Your task to perform on an android device: toggle show notifications on the lock screen Image 0: 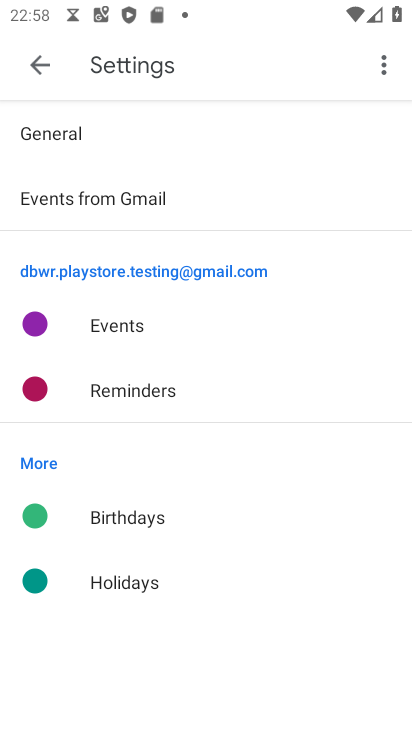
Step 0: press back button
Your task to perform on an android device: toggle show notifications on the lock screen Image 1: 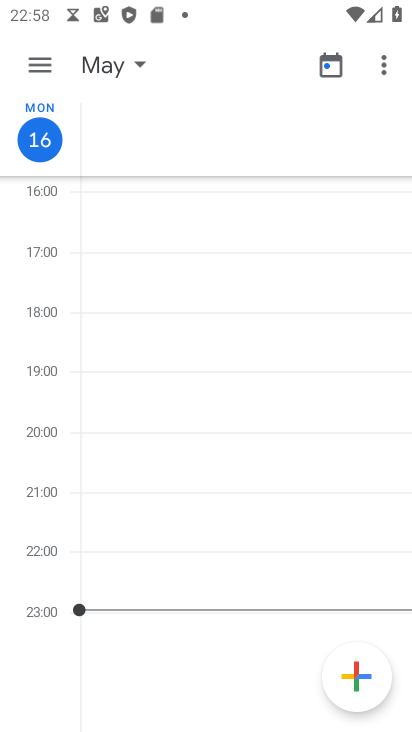
Step 1: press back button
Your task to perform on an android device: toggle show notifications on the lock screen Image 2: 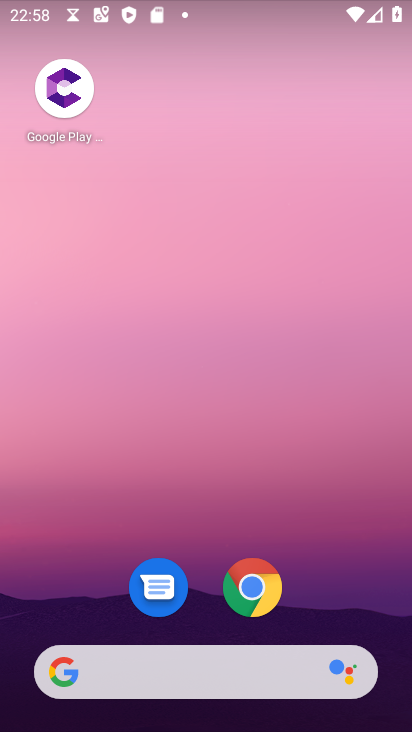
Step 2: drag from (345, 523) to (251, 20)
Your task to perform on an android device: toggle show notifications on the lock screen Image 3: 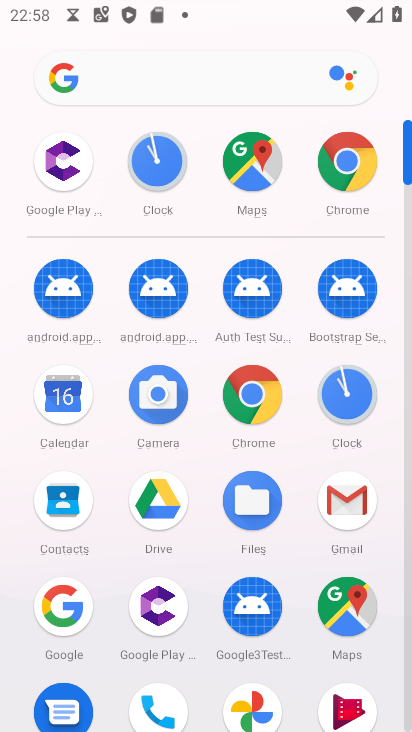
Step 3: drag from (12, 521) to (0, 235)
Your task to perform on an android device: toggle show notifications on the lock screen Image 4: 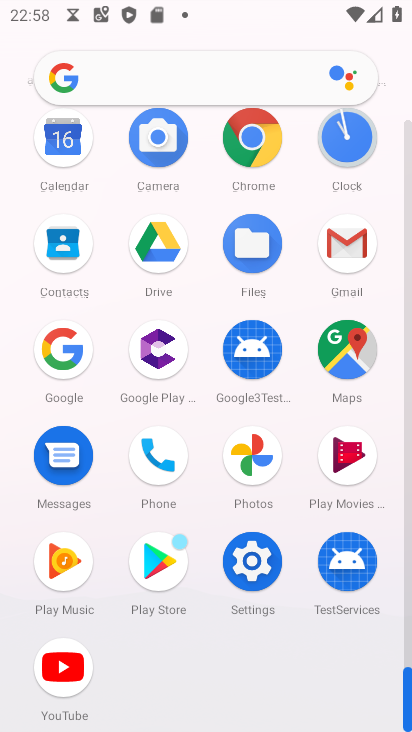
Step 4: click (251, 562)
Your task to perform on an android device: toggle show notifications on the lock screen Image 5: 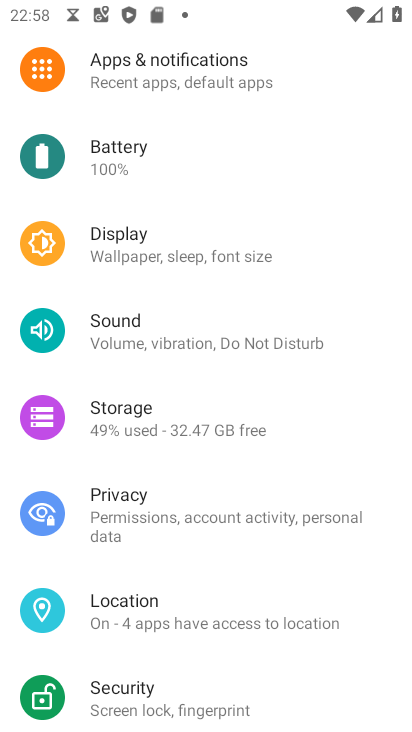
Step 5: drag from (289, 281) to (290, 597)
Your task to perform on an android device: toggle show notifications on the lock screen Image 6: 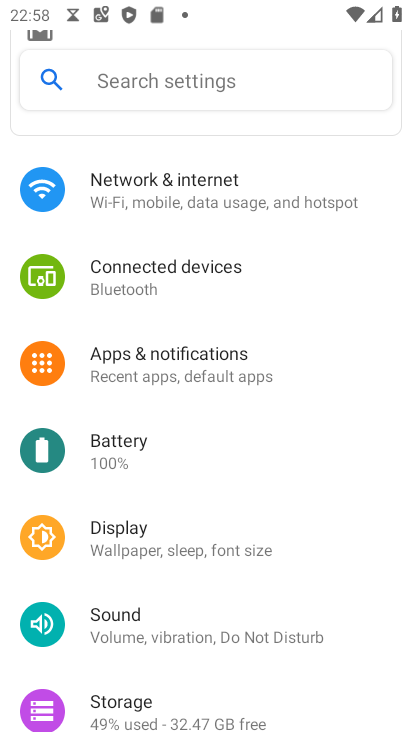
Step 6: drag from (299, 245) to (292, 559)
Your task to perform on an android device: toggle show notifications on the lock screen Image 7: 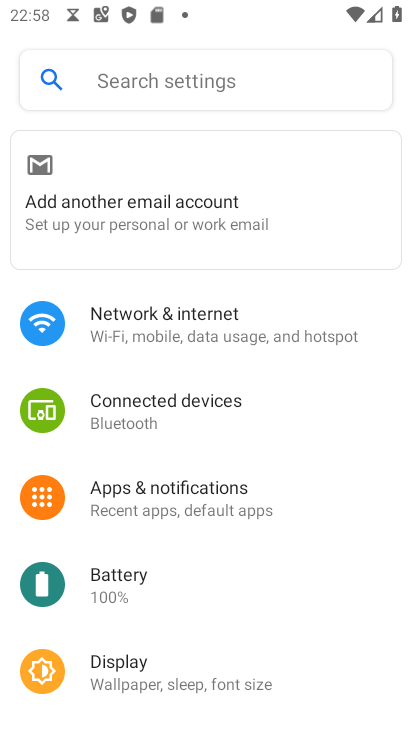
Step 7: drag from (284, 542) to (297, 171)
Your task to perform on an android device: toggle show notifications on the lock screen Image 8: 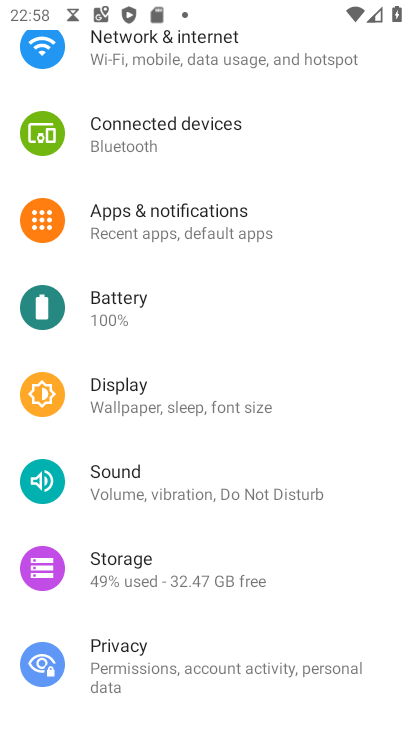
Step 8: drag from (242, 490) to (251, 185)
Your task to perform on an android device: toggle show notifications on the lock screen Image 9: 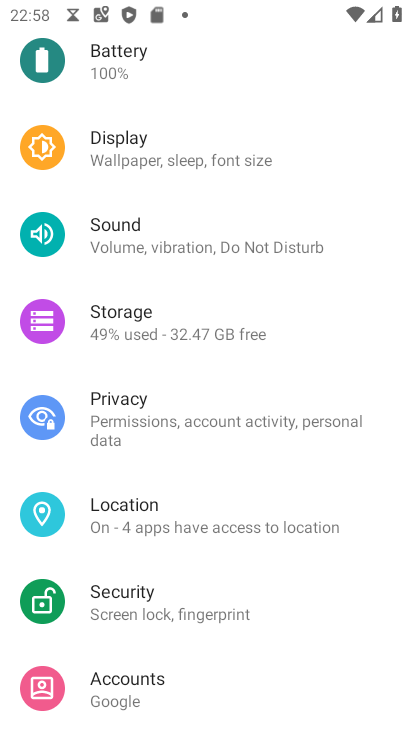
Step 9: drag from (269, 557) to (261, 125)
Your task to perform on an android device: toggle show notifications on the lock screen Image 10: 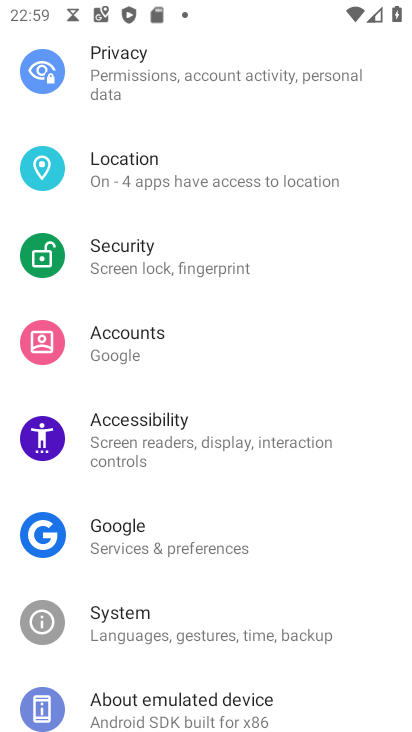
Step 10: drag from (251, 623) to (238, 125)
Your task to perform on an android device: toggle show notifications on the lock screen Image 11: 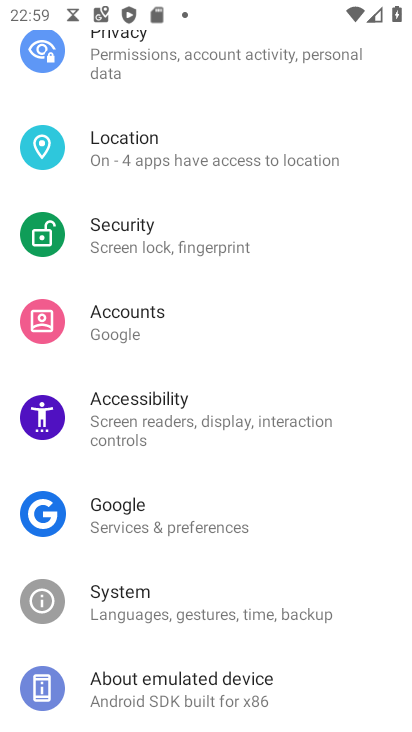
Step 11: drag from (257, 609) to (249, 139)
Your task to perform on an android device: toggle show notifications on the lock screen Image 12: 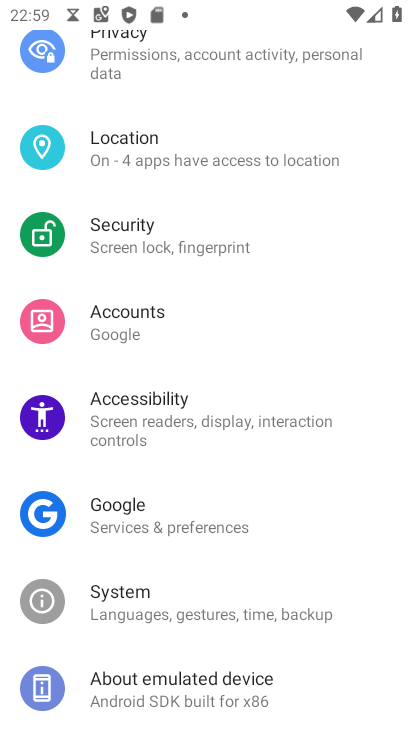
Step 12: drag from (235, 294) to (232, 678)
Your task to perform on an android device: toggle show notifications on the lock screen Image 13: 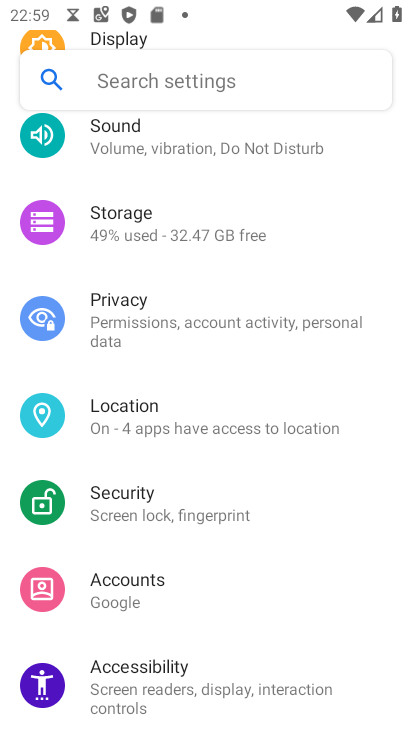
Step 13: drag from (242, 249) to (241, 611)
Your task to perform on an android device: toggle show notifications on the lock screen Image 14: 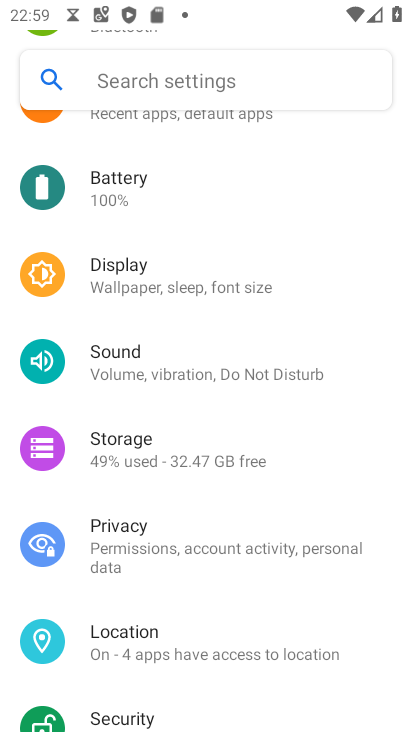
Step 14: drag from (246, 342) to (242, 613)
Your task to perform on an android device: toggle show notifications on the lock screen Image 15: 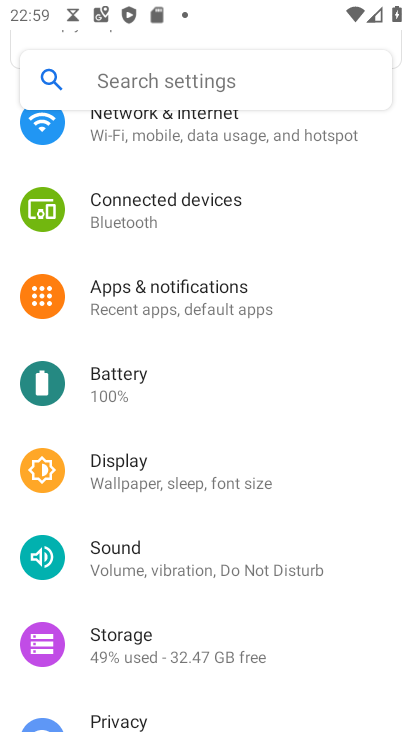
Step 15: drag from (234, 238) to (232, 577)
Your task to perform on an android device: toggle show notifications on the lock screen Image 16: 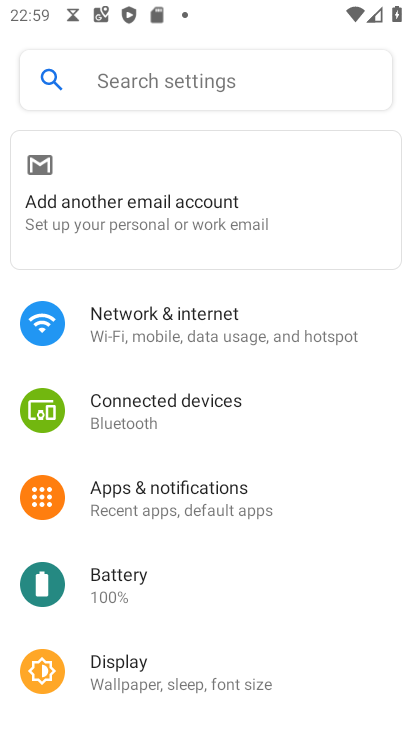
Step 16: click (212, 488)
Your task to perform on an android device: toggle show notifications on the lock screen Image 17: 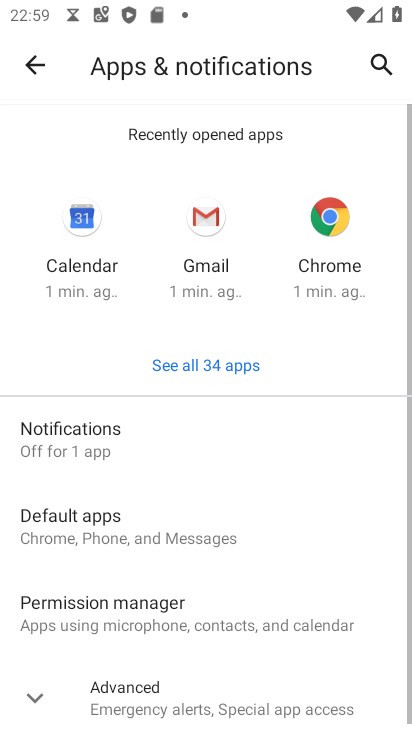
Step 17: click (146, 425)
Your task to perform on an android device: toggle show notifications on the lock screen Image 18: 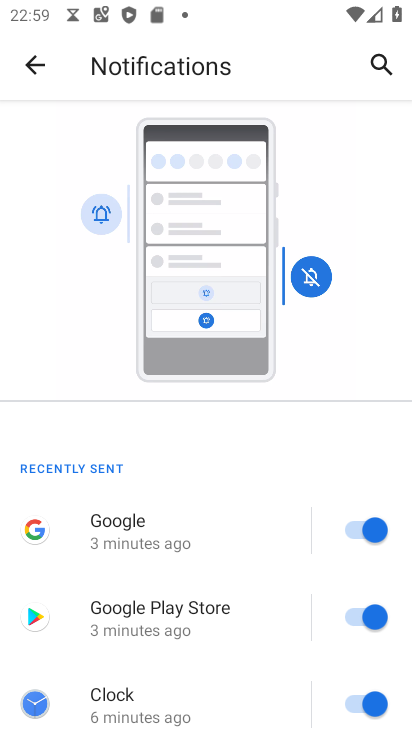
Step 18: drag from (243, 551) to (240, 61)
Your task to perform on an android device: toggle show notifications on the lock screen Image 19: 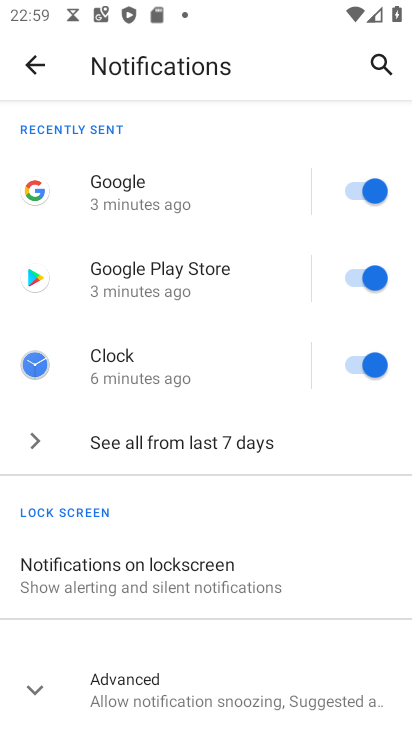
Step 19: click (30, 699)
Your task to perform on an android device: toggle show notifications on the lock screen Image 20: 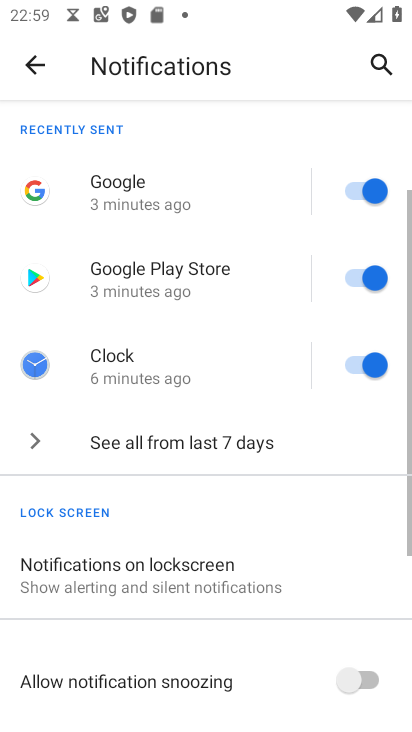
Step 20: drag from (204, 618) to (206, 128)
Your task to perform on an android device: toggle show notifications on the lock screen Image 21: 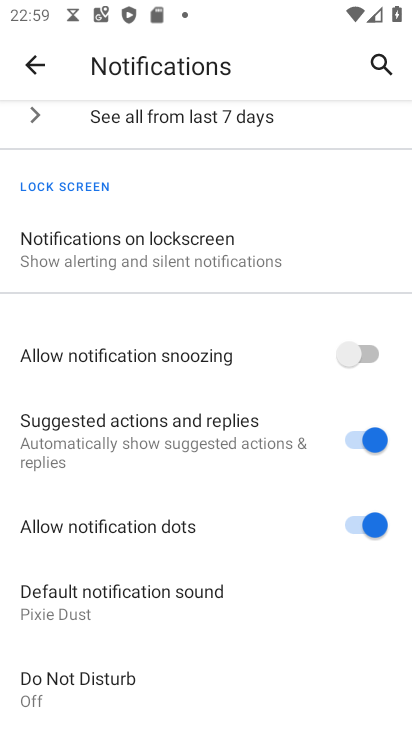
Step 21: drag from (204, 563) to (210, 239)
Your task to perform on an android device: toggle show notifications on the lock screen Image 22: 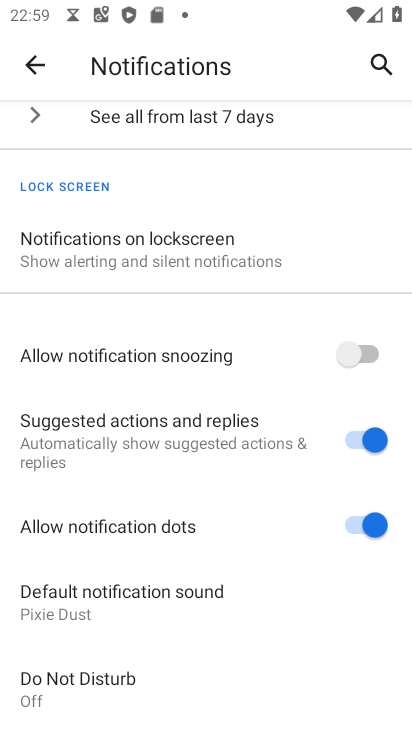
Step 22: click (216, 245)
Your task to perform on an android device: toggle show notifications on the lock screen Image 23: 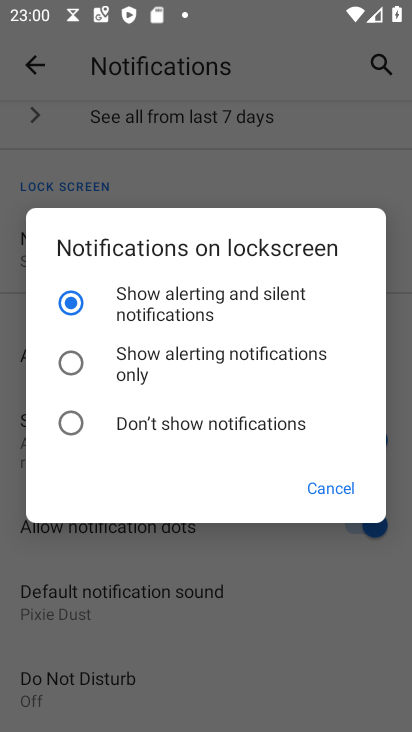
Step 23: click (197, 315)
Your task to perform on an android device: toggle show notifications on the lock screen Image 24: 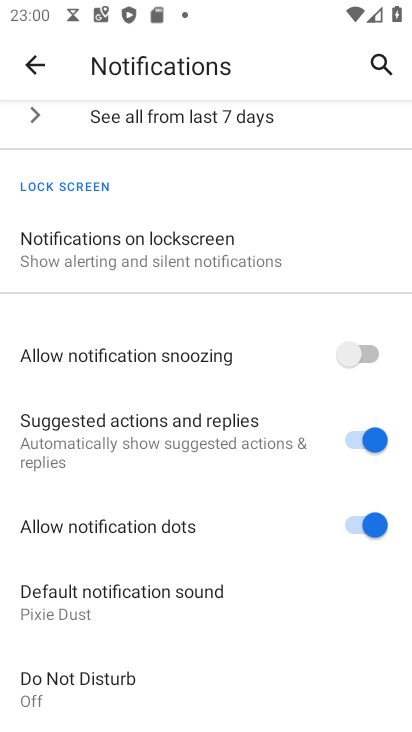
Step 24: task complete